Your task to perform on an android device: Go to network settings Image 0: 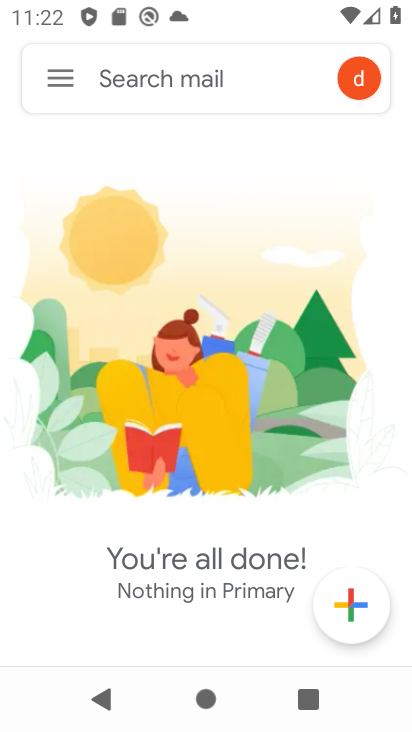
Step 0: press home button
Your task to perform on an android device: Go to network settings Image 1: 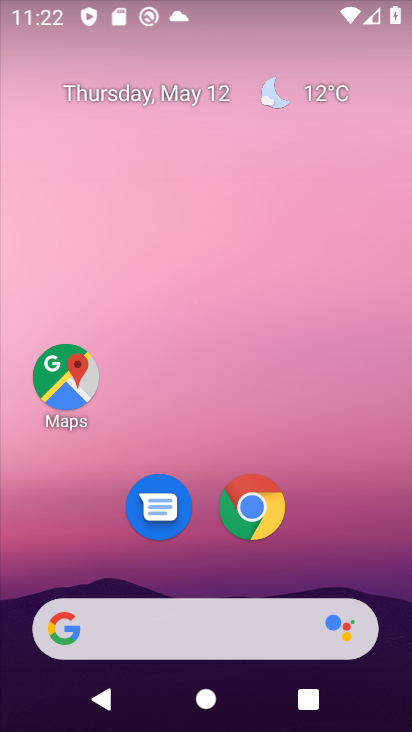
Step 1: drag from (200, 584) to (212, 172)
Your task to perform on an android device: Go to network settings Image 2: 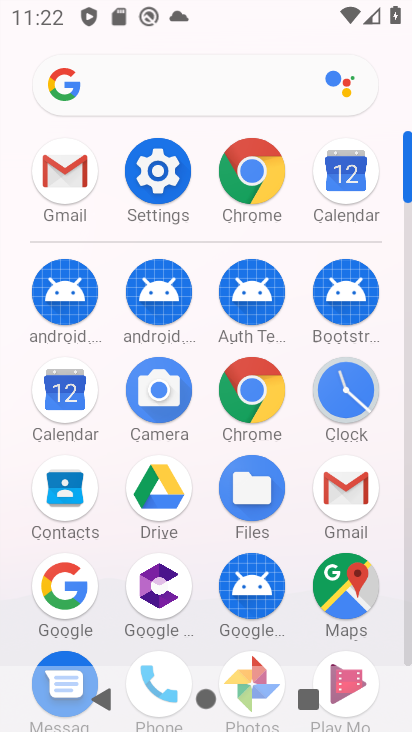
Step 2: click (170, 214)
Your task to perform on an android device: Go to network settings Image 3: 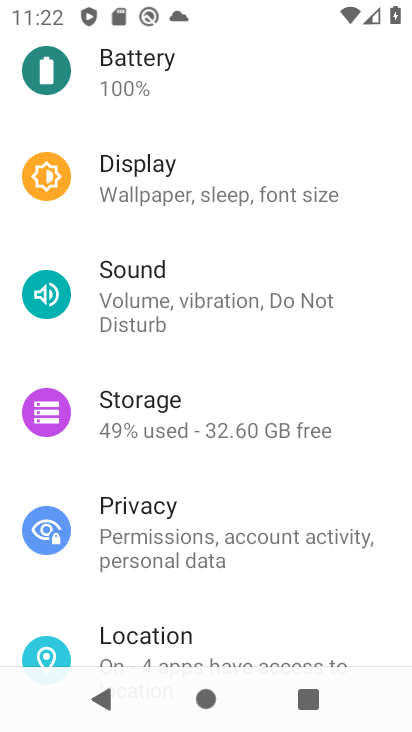
Step 3: drag from (210, 162) to (226, 576)
Your task to perform on an android device: Go to network settings Image 4: 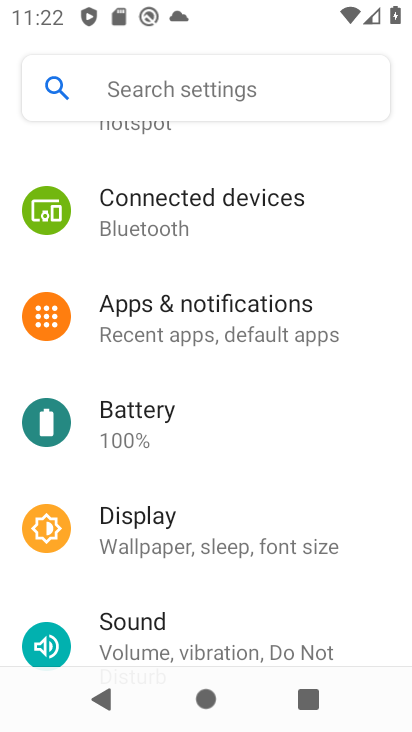
Step 4: drag from (199, 287) to (192, 637)
Your task to perform on an android device: Go to network settings Image 5: 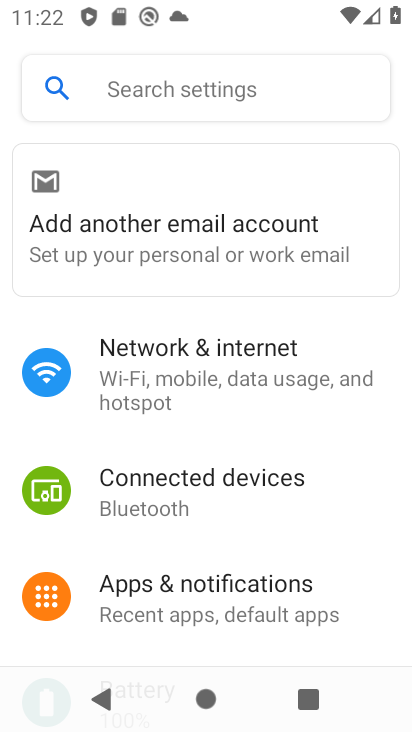
Step 5: click (189, 369)
Your task to perform on an android device: Go to network settings Image 6: 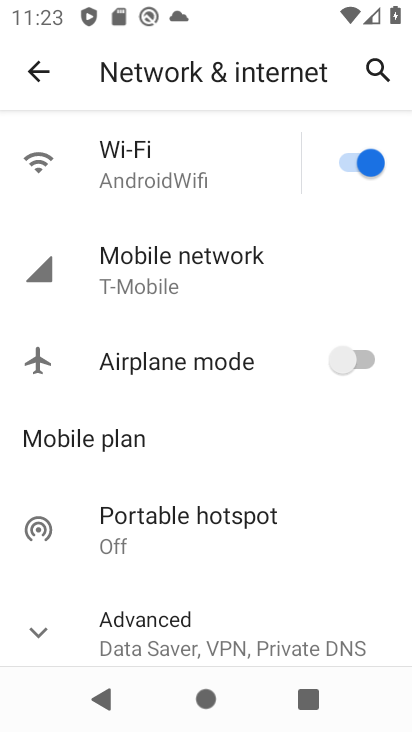
Step 6: task complete